Your task to perform on an android device: Do I have any events this weekend? Image 0: 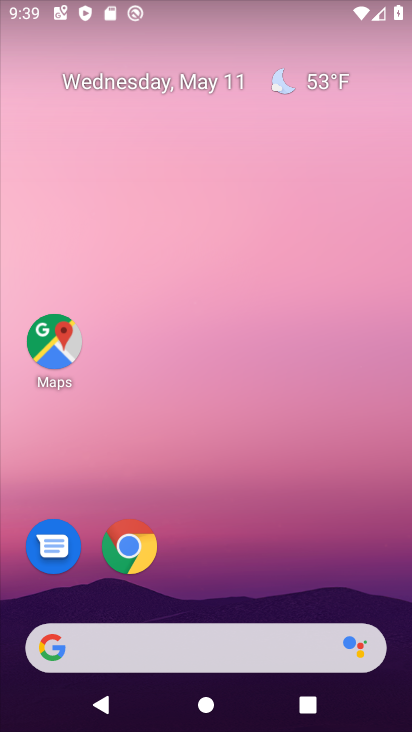
Step 0: drag from (403, 624) to (308, 56)
Your task to perform on an android device: Do I have any events this weekend? Image 1: 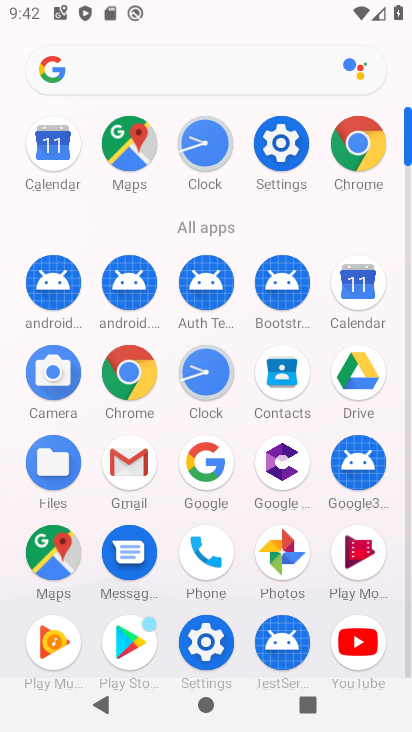
Step 1: click (360, 312)
Your task to perform on an android device: Do I have any events this weekend? Image 2: 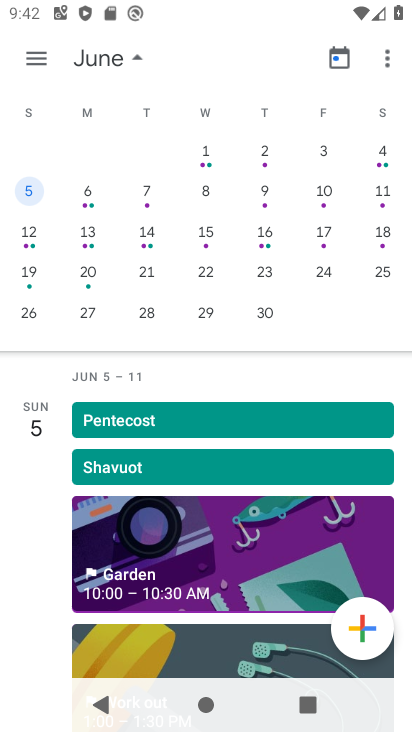
Step 2: click (41, 69)
Your task to perform on an android device: Do I have any events this weekend? Image 3: 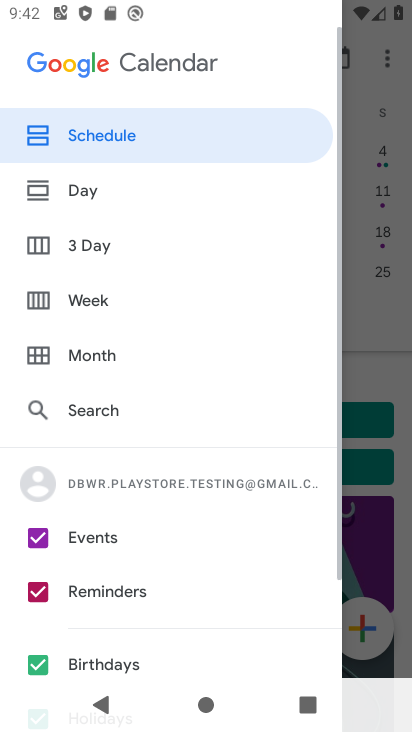
Step 3: click (87, 153)
Your task to perform on an android device: Do I have any events this weekend? Image 4: 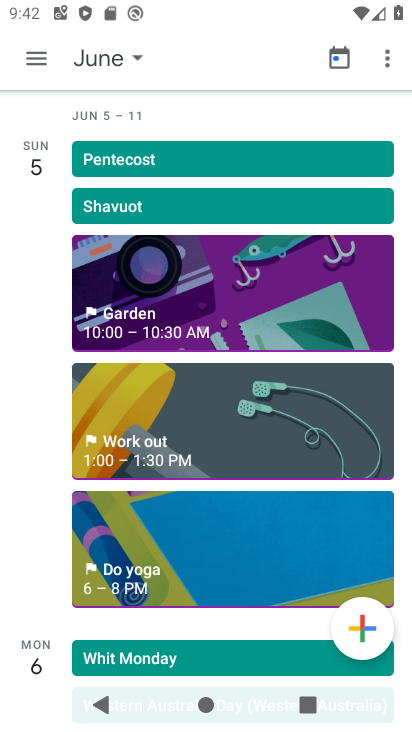
Step 4: task complete